Your task to perform on an android device: Open settings Image 0: 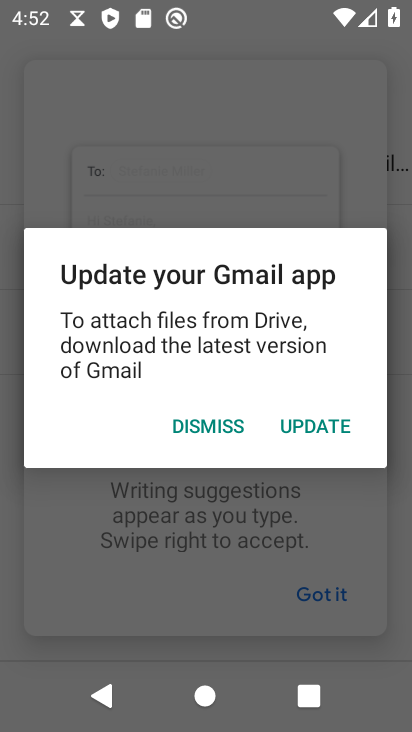
Step 0: press back button
Your task to perform on an android device: Open settings Image 1: 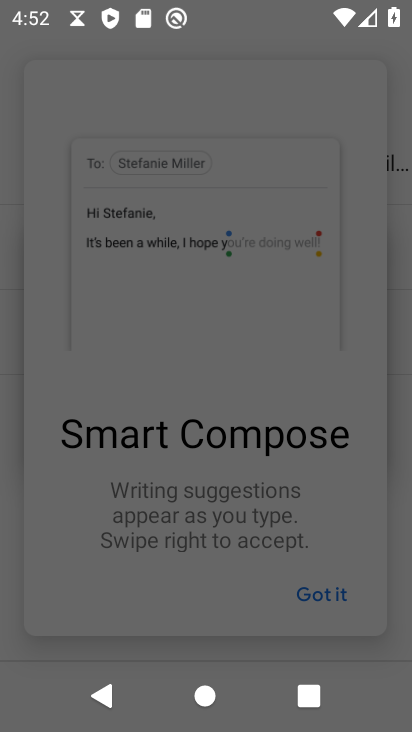
Step 1: press home button
Your task to perform on an android device: Open settings Image 2: 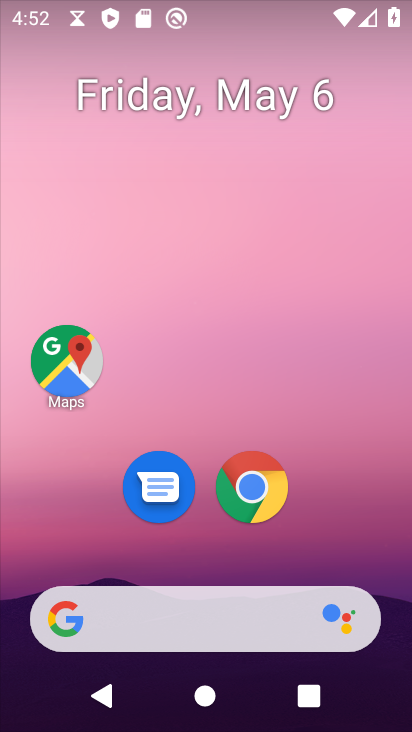
Step 2: drag from (205, 425) to (244, 5)
Your task to perform on an android device: Open settings Image 3: 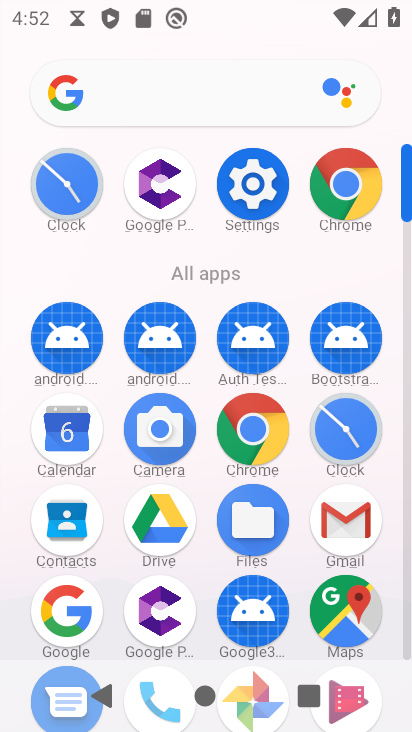
Step 3: click (252, 186)
Your task to perform on an android device: Open settings Image 4: 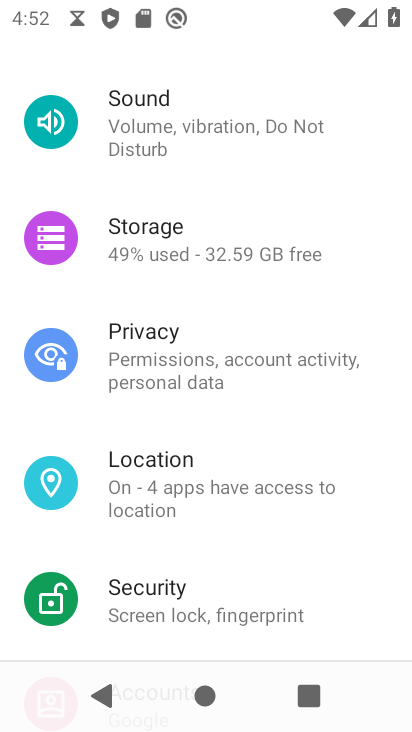
Step 4: task complete